Your task to perform on an android device: remove spam from my inbox in the gmail app Image 0: 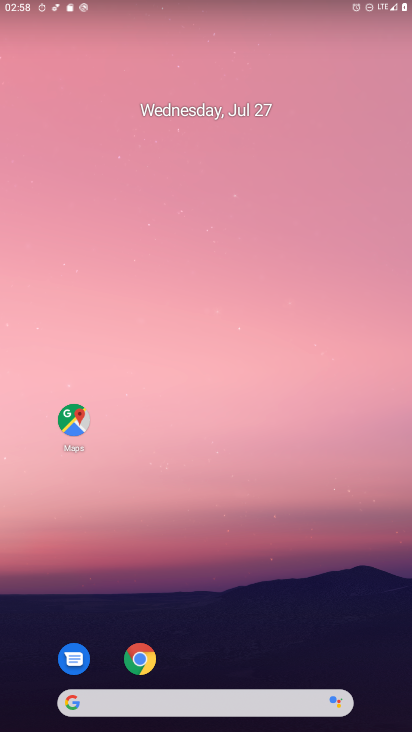
Step 0: drag from (302, 640) to (287, 122)
Your task to perform on an android device: remove spam from my inbox in the gmail app Image 1: 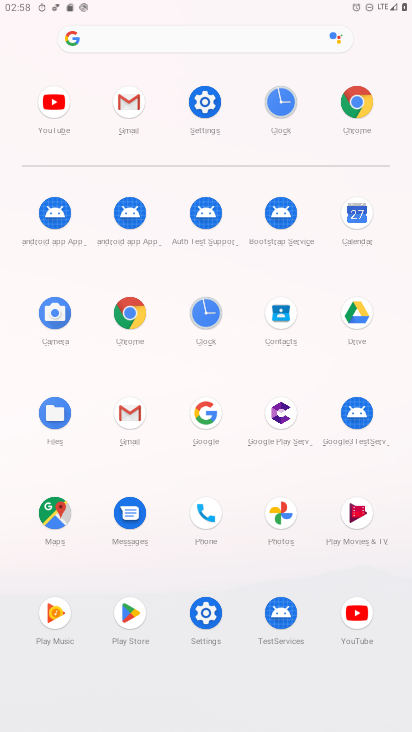
Step 1: click (134, 92)
Your task to perform on an android device: remove spam from my inbox in the gmail app Image 2: 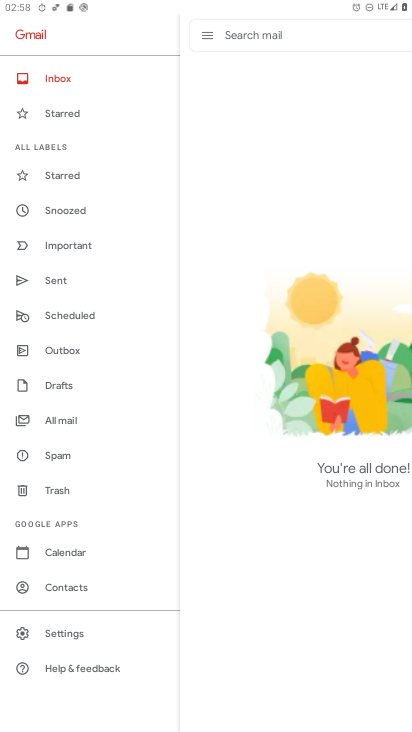
Step 2: click (88, 629)
Your task to perform on an android device: remove spam from my inbox in the gmail app Image 3: 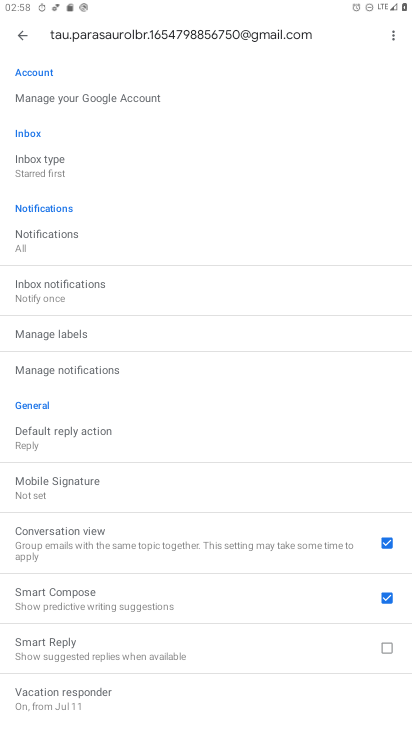
Step 3: click (19, 33)
Your task to perform on an android device: remove spam from my inbox in the gmail app Image 4: 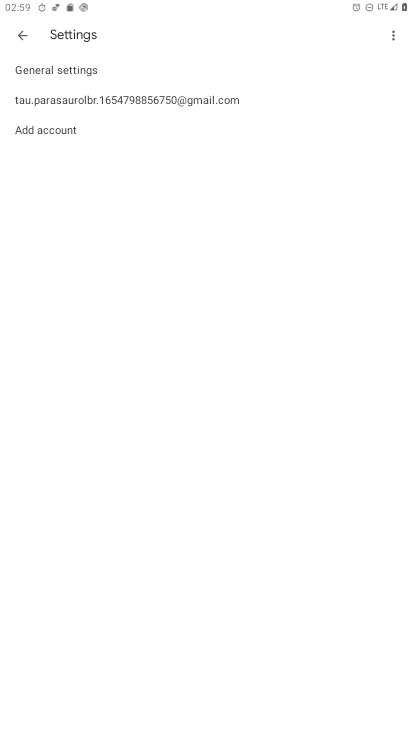
Step 4: click (19, 33)
Your task to perform on an android device: remove spam from my inbox in the gmail app Image 5: 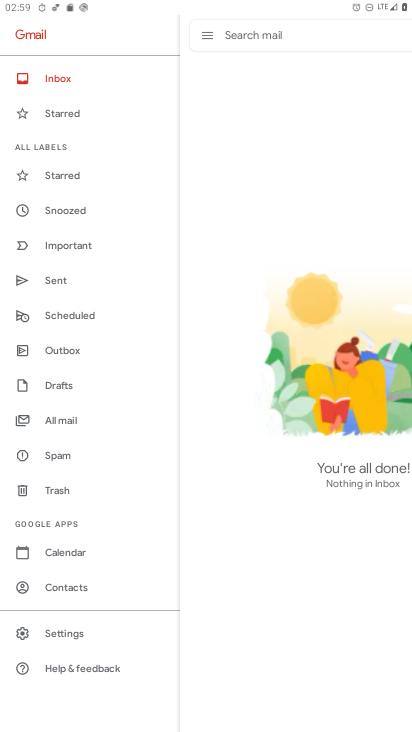
Step 5: click (53, 76)
Your task to perform on an android device: remove spam from my inbox in the gmail app Image 6: 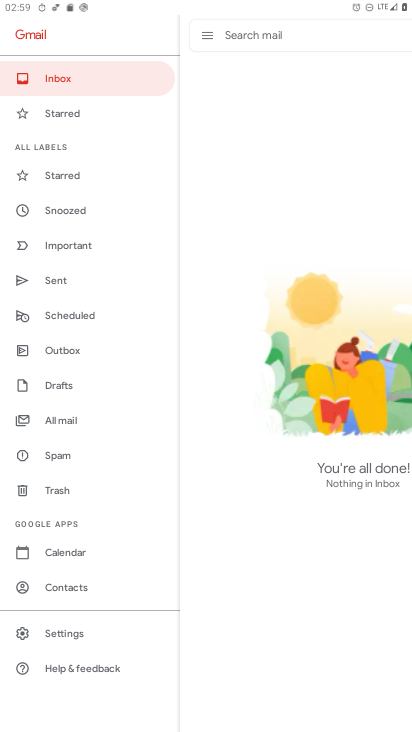
Step 6: task complete